Your task to perform on an android device: open a new tab in the chrome app Image 0: 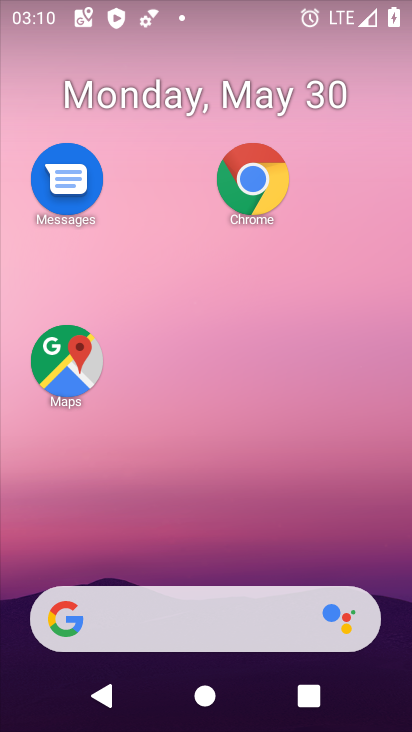
Step 0: drag from (214, 548) to (227, 110)
Your task to perform on an android device: open a new tab in the chrome app Image 1: 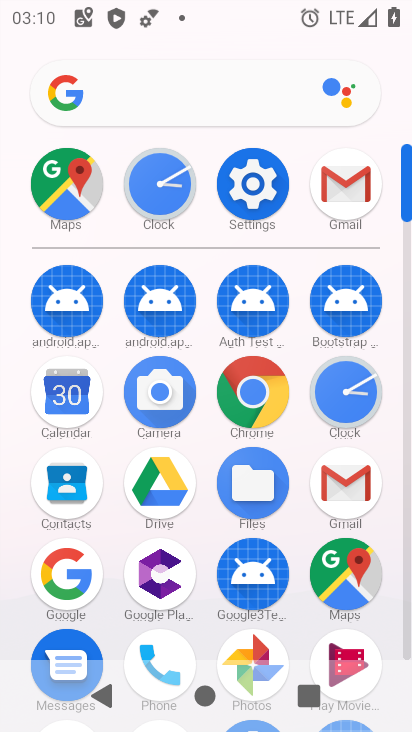
Step 1: click (273, 416)
Your task to perform on an android device: open a new tab in the chrome app Image 2: 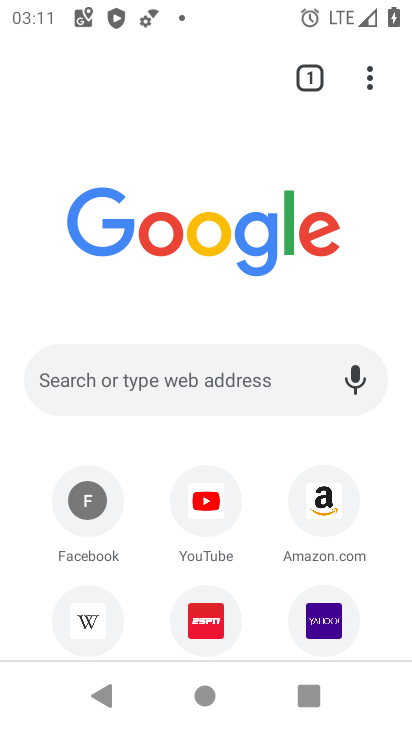
Step 2: click (306, 69)
Your task to perform on an android device: open a new tab in the chrome app Image 3: 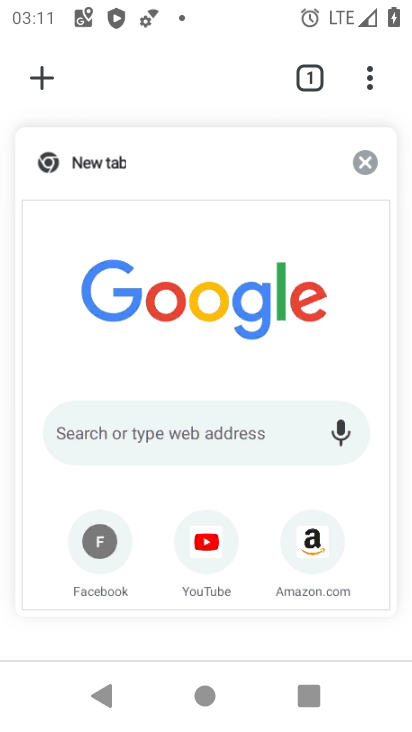
Step 3: click (41, 82)
Your task to perform on an android device: open a new tab in the chrome app Image 4: 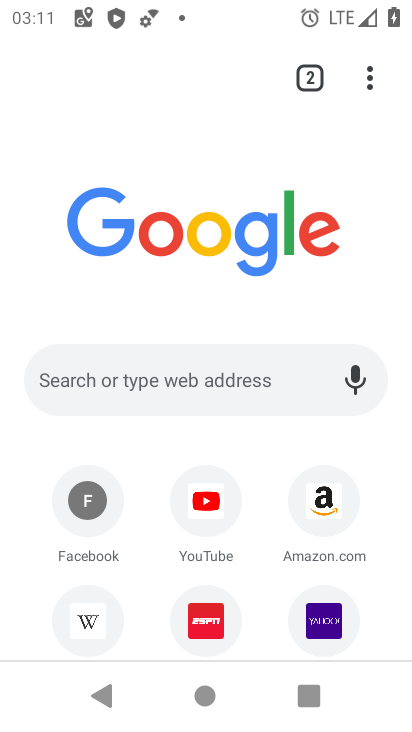
Step 4: task complete